Your task to perform on an android device: See recent photos Image 0: 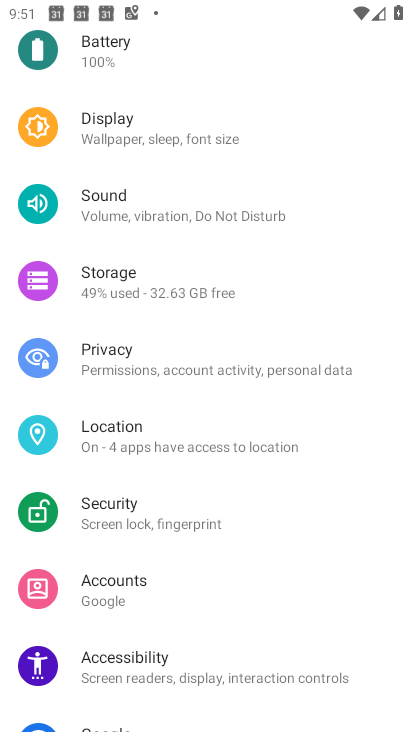
Step 0: press home button
Your task to perform on an android device: See recent photos Image 1: 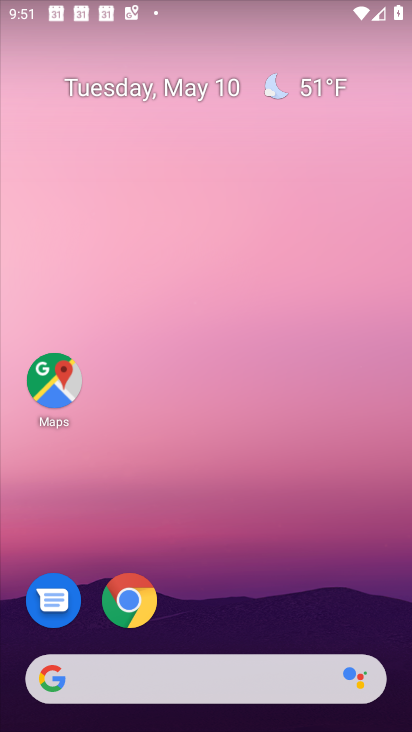
Step 1: drag from (264, 523) to (278, 77)
Your task to perform on an android device: See recent photos Image 2: 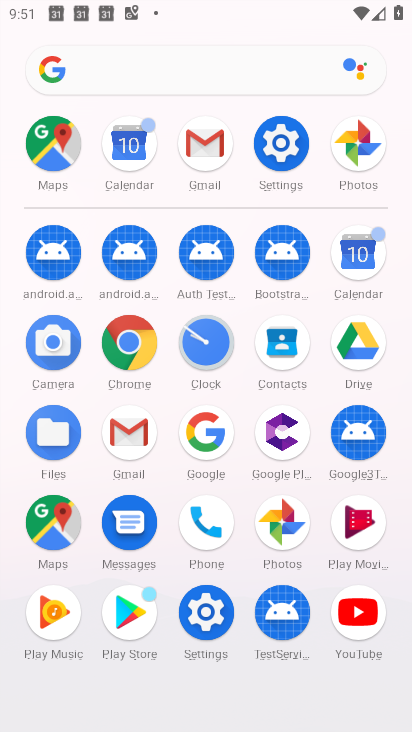
Step 2: click (274, 522)
Your task to perform on an android device: See recent photos Image 3: 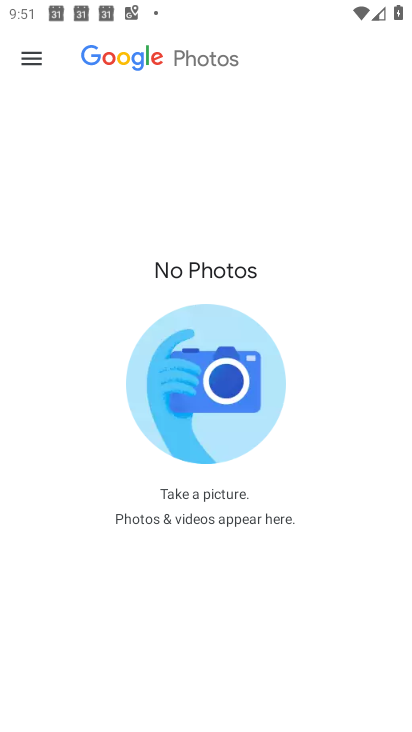
Step 3: click (24, 59)
Your task to perform on an android device: See recent photos Image 4: 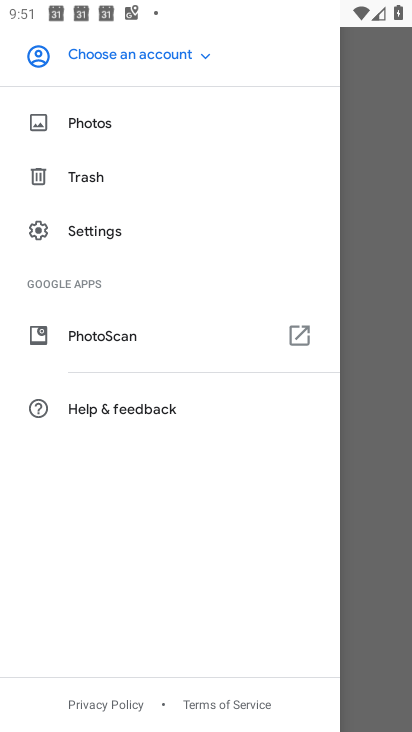
Step 4: click (106, 47)
Your task to perform on an android device: See recent photos Image 5: 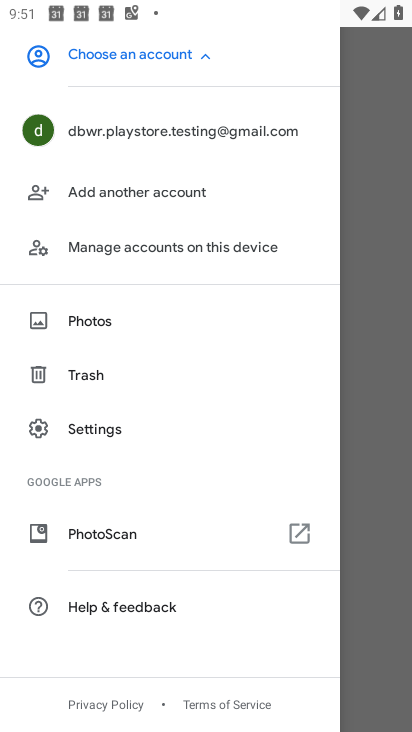
Step 5: click (126, 131)
Your task to perform on an android device: See recent photos Image 6: 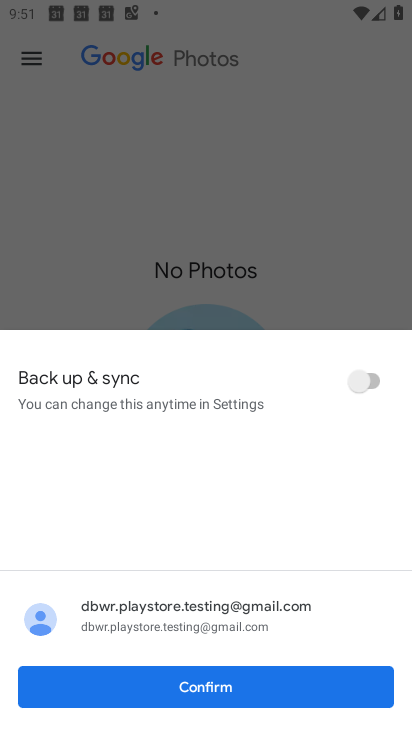
Step 6: click (223, 691)
Your task to perform on an android device: See recent photos Image 7: 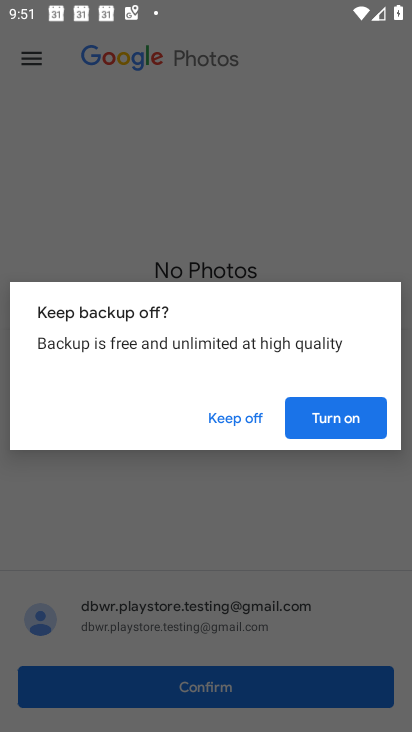
Step 7: click (335, 414)
Your task to perform on an android device: See recent photos Image 8: 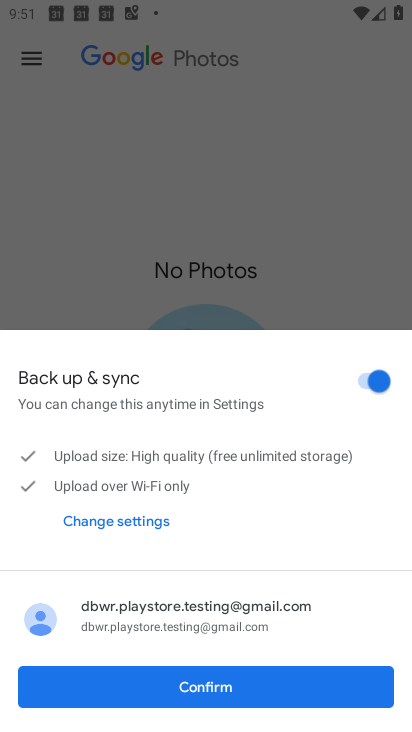
Step 8: click (270, 680)
Your task to perform on an android device: See recent photos Image 9: 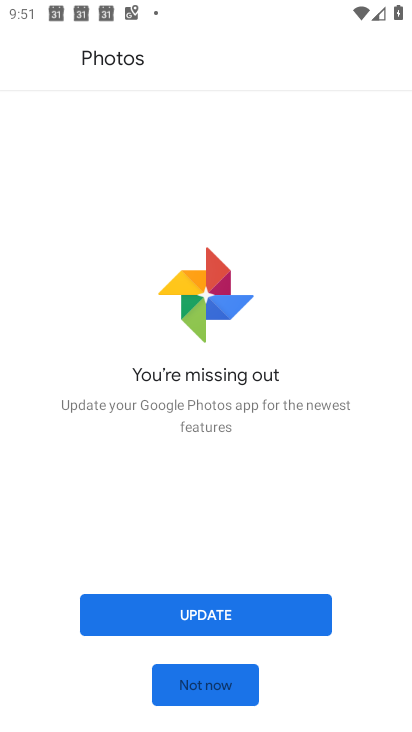
Step 9: click (219, 613)
Your task to perform on an android device: See recent photos Image 10: 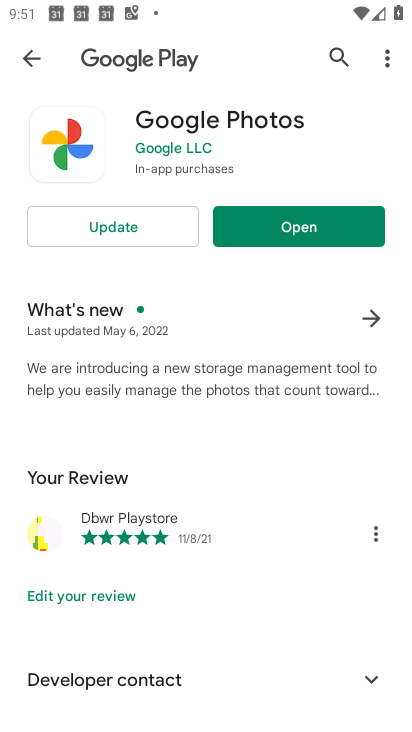
Step 10: click (77, 226)
Your task to perform on an android device: See recent photos Image 11: 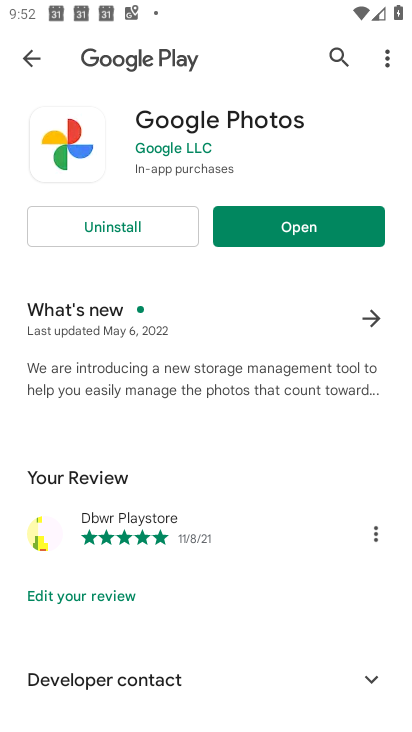
Step 11: click (291, 222)
Your task to perform on an android device: See recent photos Image 12: 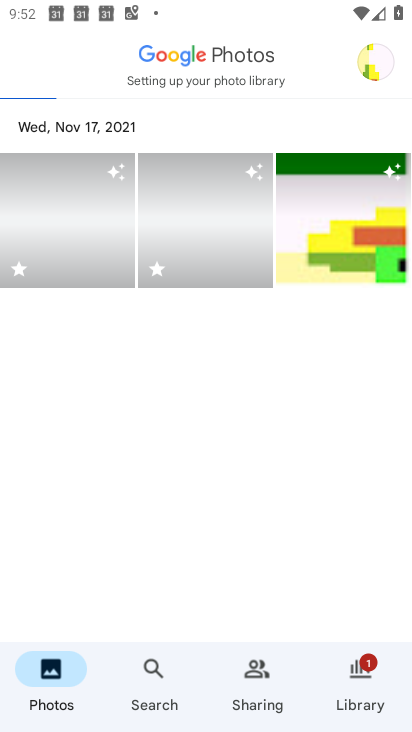
Step 12: click (145, 667)
Your task to perform on an android device: See recent photos Image 13: 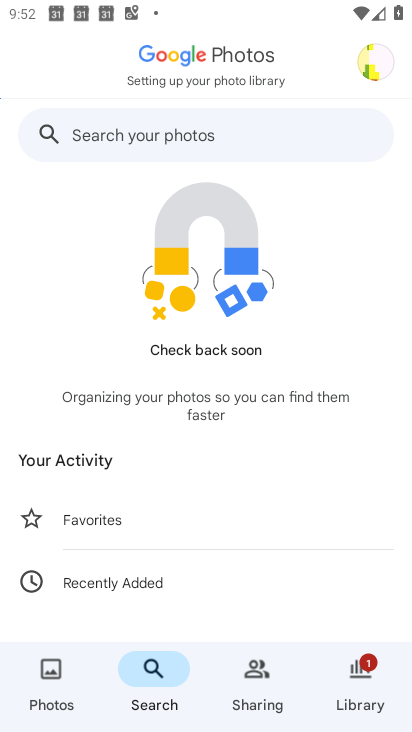
Step 13: click (102, 577)
Your task to perform on an android device: See recent photos Image 14: 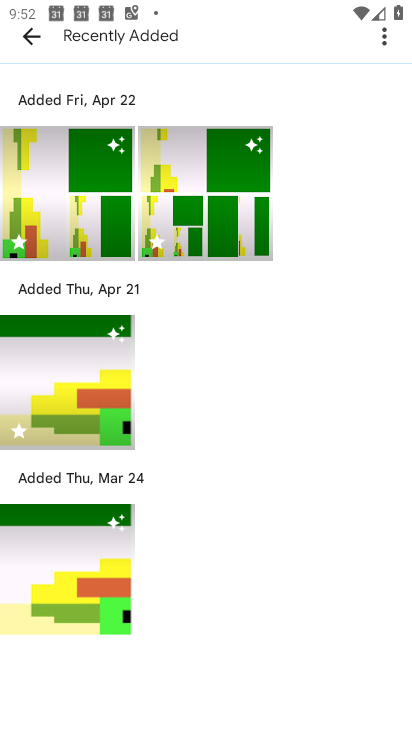
Step 14: task complete